Your task to perform on an android device: uninstall "Cash App" Image 0: 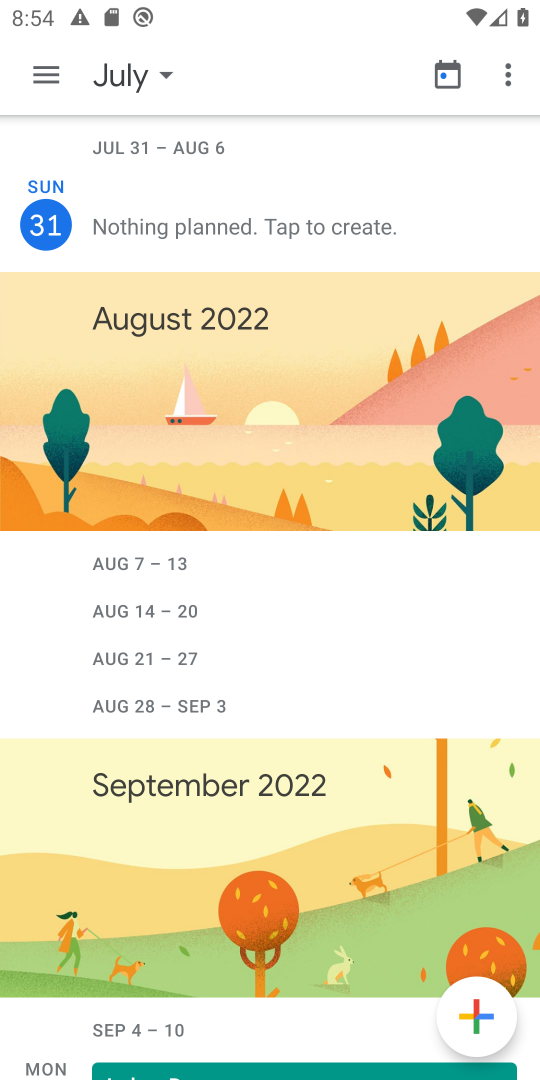
Step 0: press home button
Your task to perform on an android device: uninstall "Cash App" Image 1: 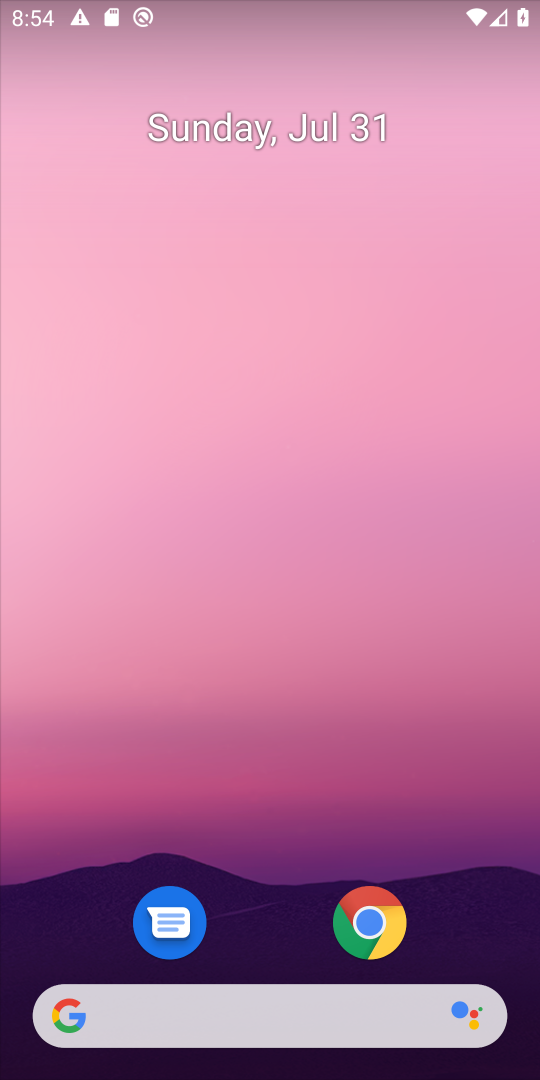
Step 1: drag from (259, 1073) to (266, 133)
Your task to perform on an android device: uninstall "Cash App" Image 2: 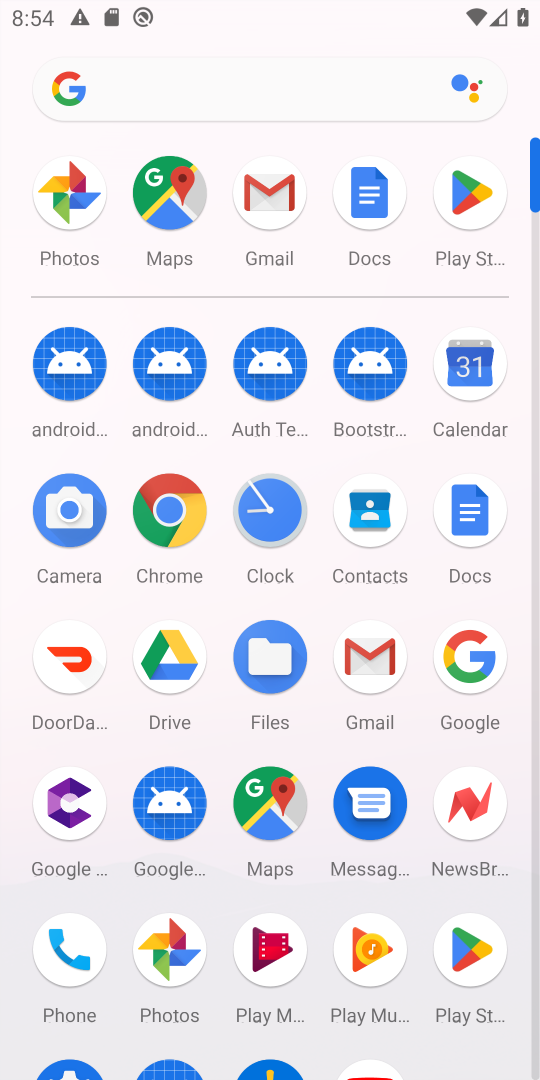
Step 2: click (472, 191)
Your task to perform on an android device: uninstall "Cash App" Image 3: 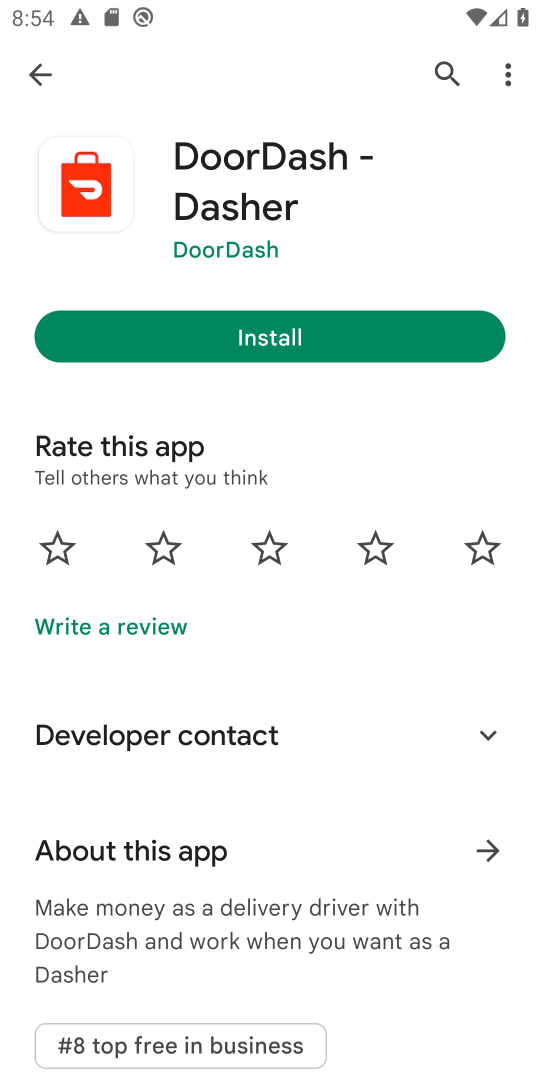
Step 3: click (446, 63)
Your task to perform on an android device: uninstall "Cash App" Image 4: 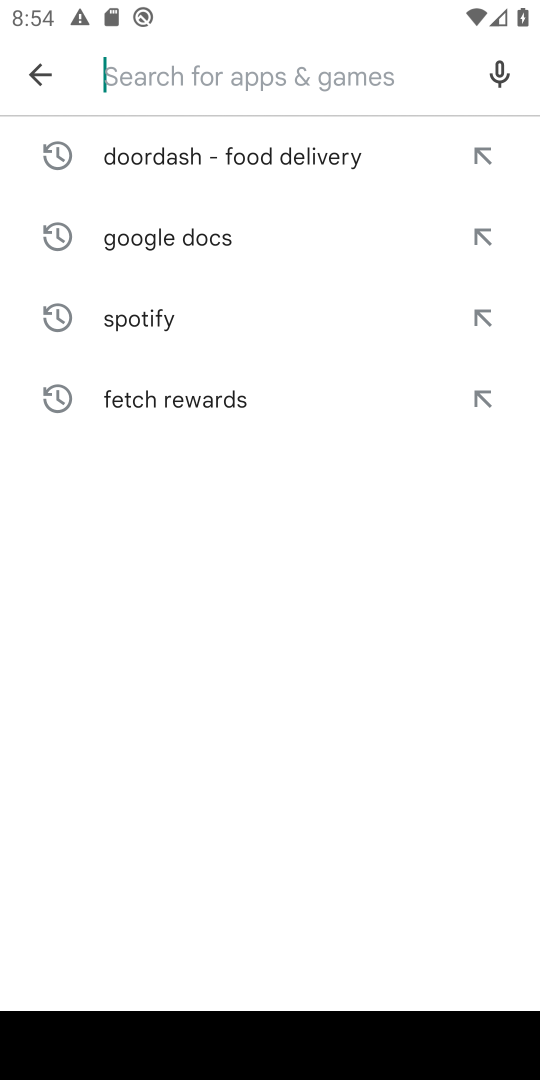
Step 4: type "Cash App"
Your task to perform on an android device: uninstall "Cash App" Image 5: 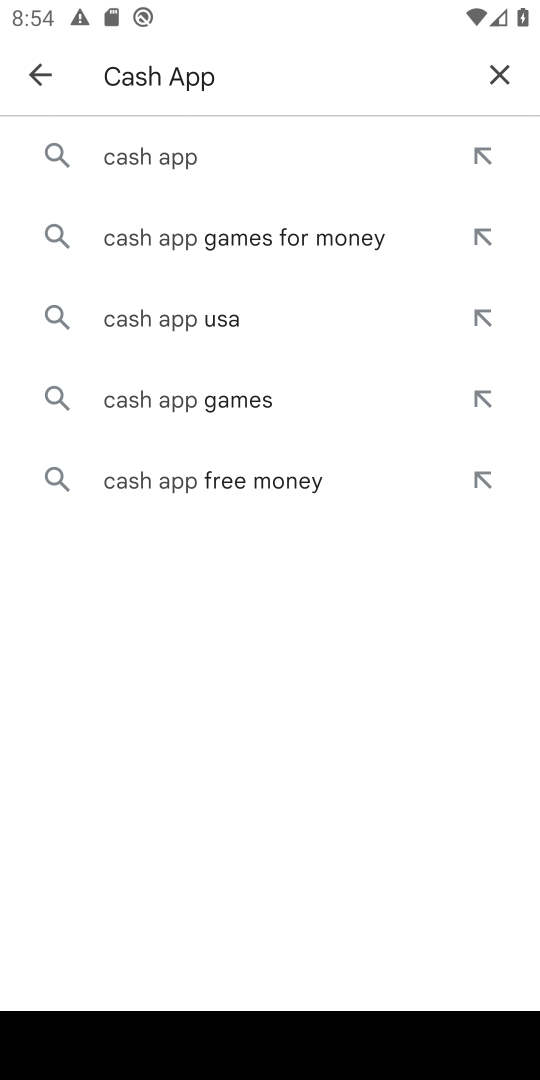
Step 5: click (158, 153)
Your task to perform on an android device: uninstall "Cash App" Image 6: 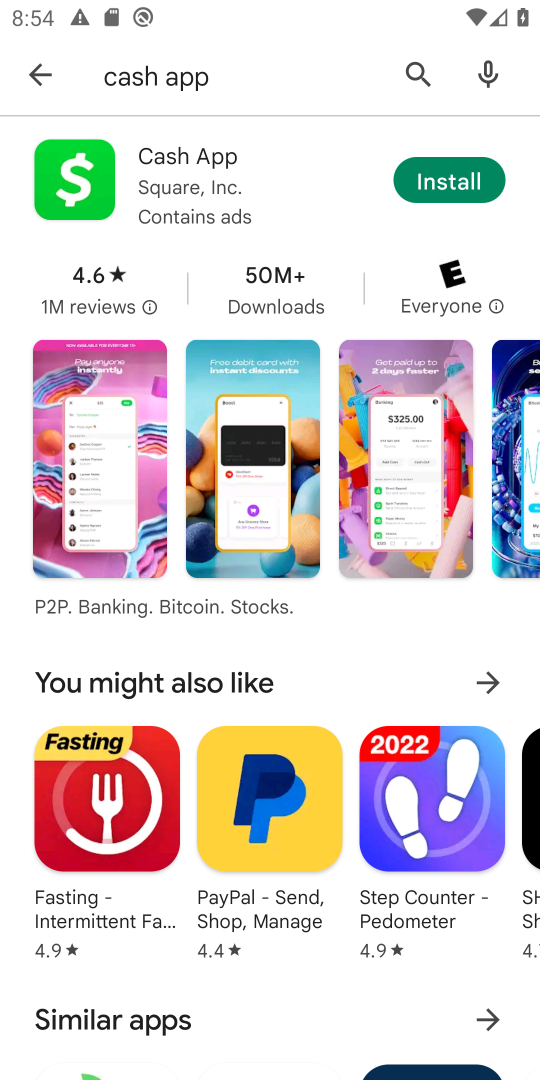
Step 6: click (196, 172)
Your task to perform on an android device: uninstall "Cash App" Image 7: 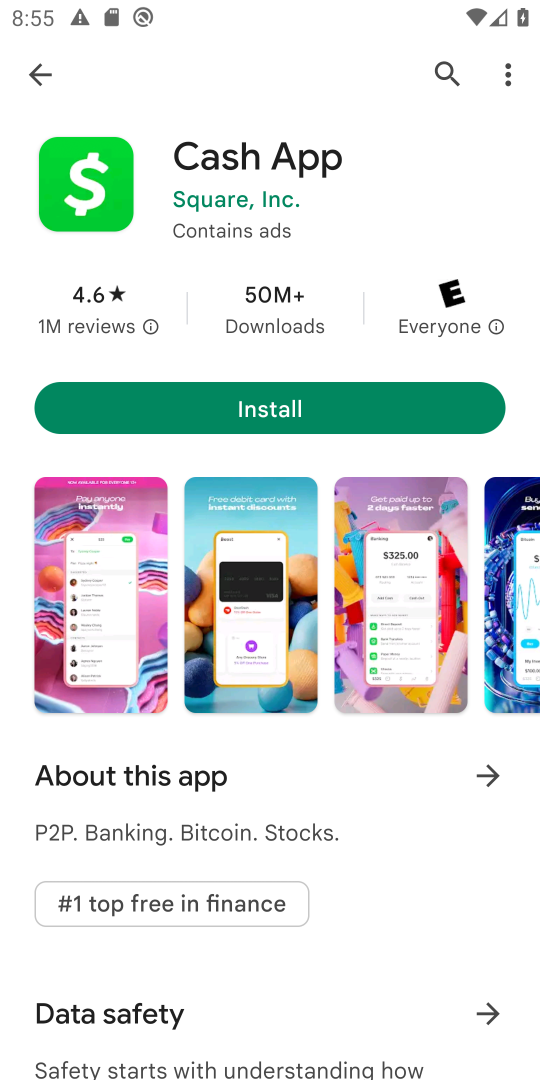
Step 7: task complete